Your task to perform on an android device: open sync settings in chrome Image 0: 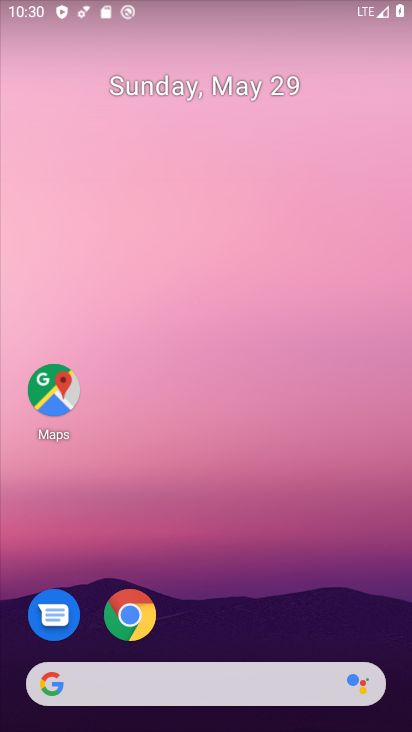
Step 0: drag from (375, 617) to (380, 262)
Your task to perform on an android device: open sync settings in chrome Image 1: 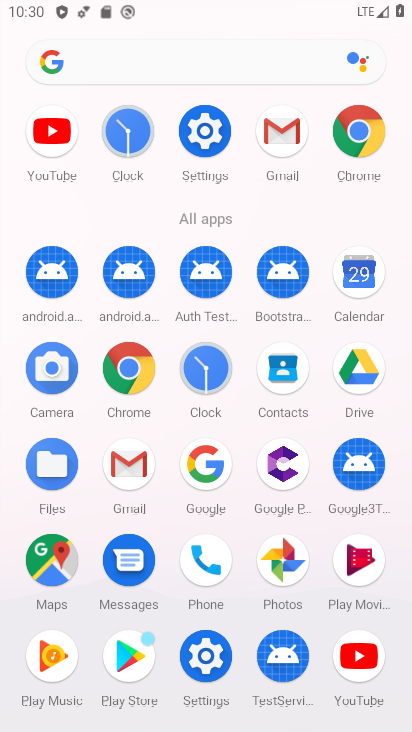
Step 1: click (139, 379)
Your task to perform on an android device: open sync settings in chrome Image 2: 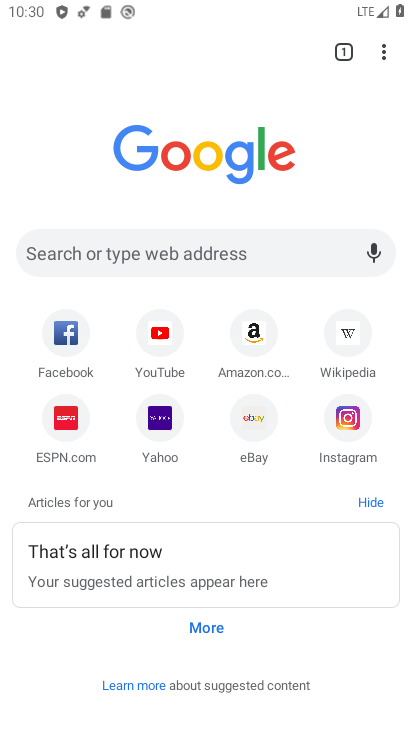
Step 2: click (387, 50)
Your task to perform on an android device: open sync settings in chrome Image 3: 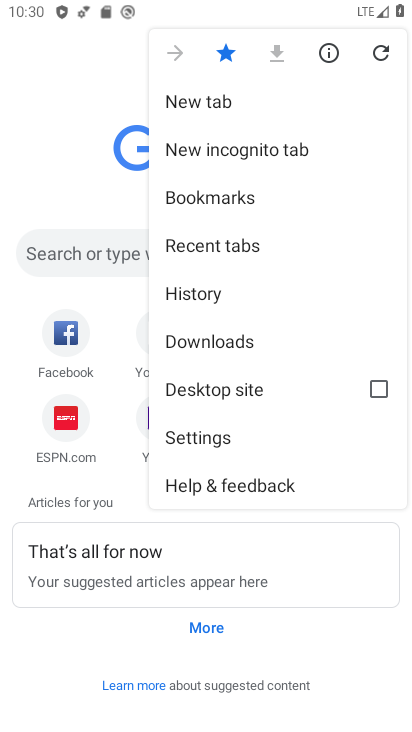
Step 3: click (212, 439)
Your task to perform on an android device: open sync settings in chrome Image 4: 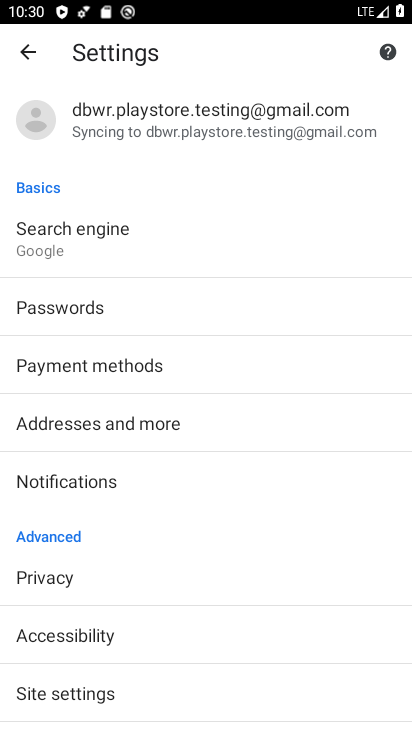
Step 4: drag from (287, 589) to (306, 470)
Your task to perform on an android device: open sync settings in chrome Image 5: 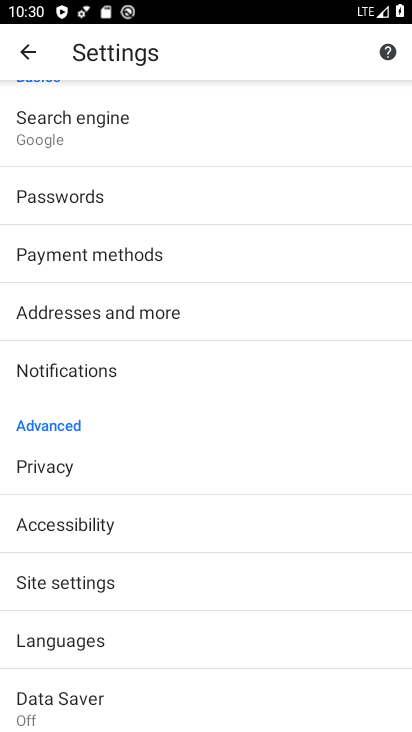
Step 5: drag from (302, 656) to (308, 513)
Your task to perform on an android device: open sync settings in chrome Image 6: 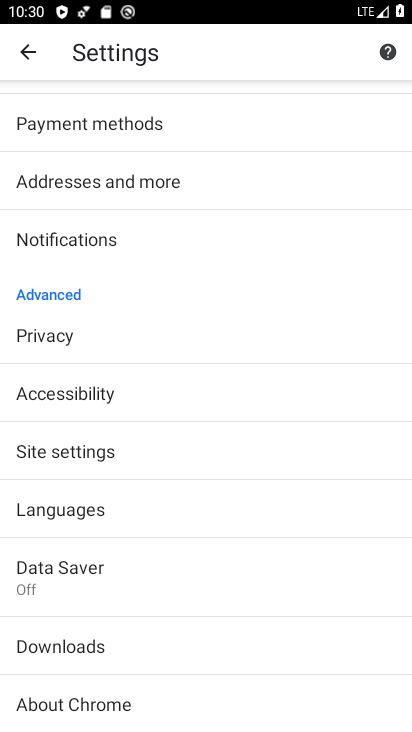
Step 6: drag from (306, 626) to (309, 487)
Your task to perform on an android device: open sync settings in chrome Image 7: 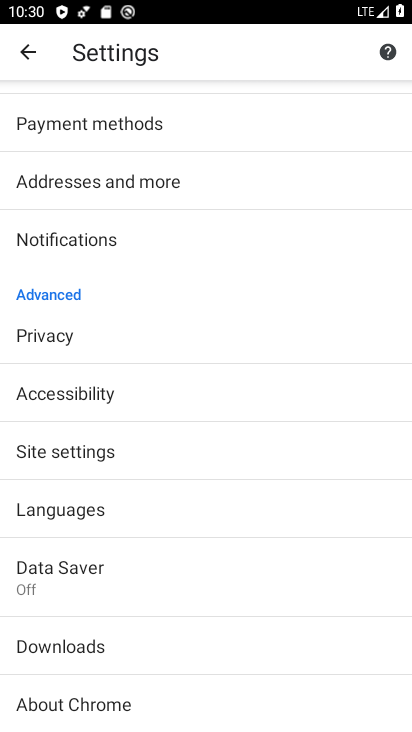
Step 7: click (302, 457)
Your task to perform on an android device: open sync settings in chrome Image 8: 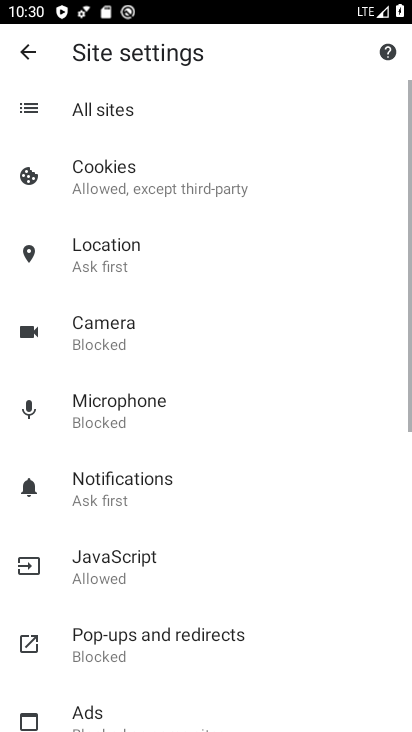
Step 8: drag from (309, 563) to (316, 502)
Your task to perform on an android device: open sync settings in chrome Image 9: 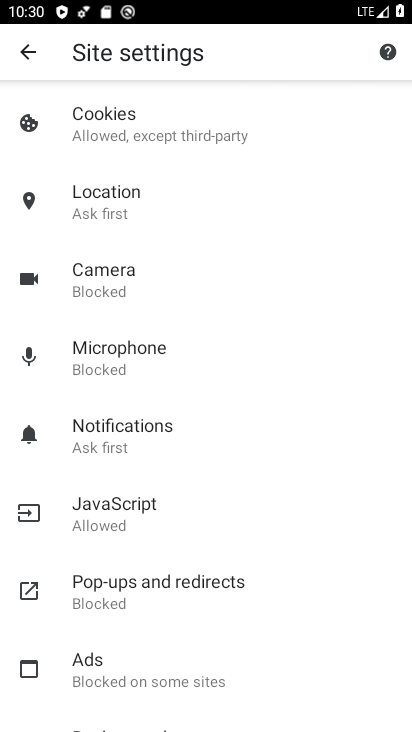
Step 9: drag from (314, 602) to (319, 523)
Your task to perform on an android device: open sync settings in chrome Image 10: 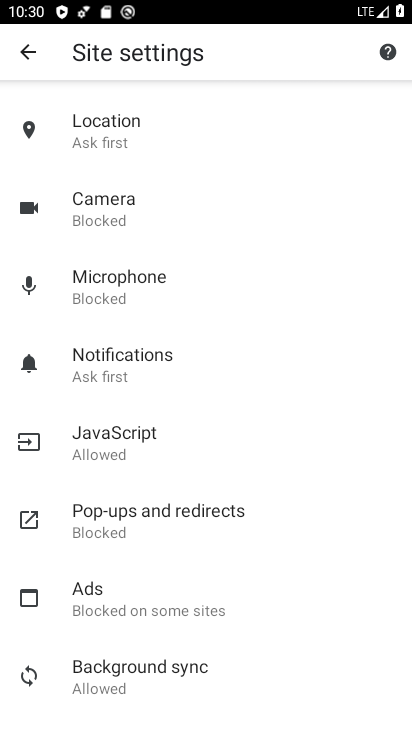
Step 10: drag from (326, 616) to (329, 540)
Your task to perform on an android device: open sync settings in chrome Image 11: 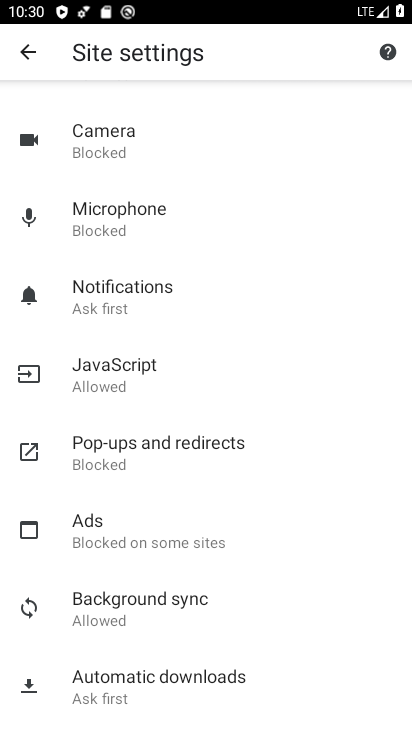
Step 11: drag from (319, 600) to (322, 547)
Your task to perform on an android device: open sync settings in chrome Image 12: 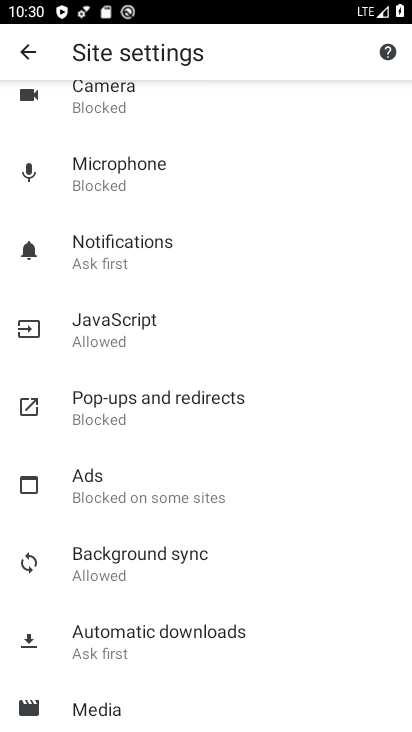
Step 12: drag from (319, 627) to (319, 562)
Your task to perform on an android device: open sync settings in chrome Image 13: 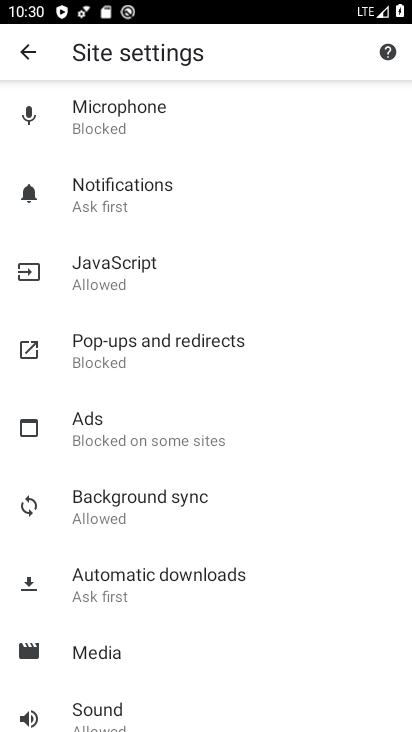
Step 13: drag from (318, 635) to (324, 481)
Your task to perform on an android device: open sync settings in chrome Image 14: 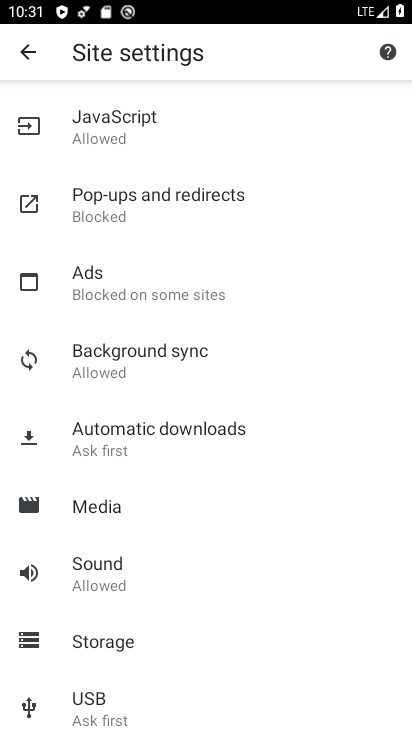
Step 14: click (194, 369)
Your task to perform on an android device: open sync settings in chrome Image 15: 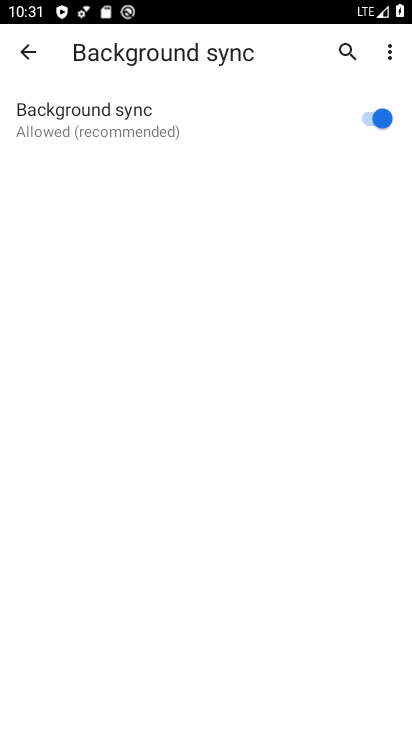
Step 15: task complete